Your task to perform on an android device: refresh tabs in the chrome app Image 0: 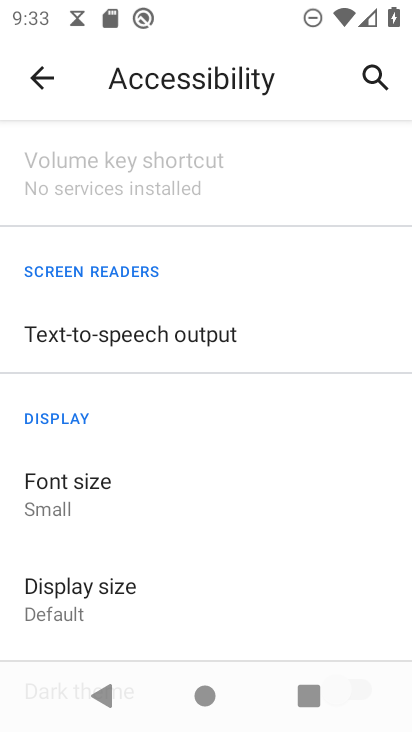
Step 0: press home button
Your task to perform on an android device: refresh tabs in the chrome app Image 1: 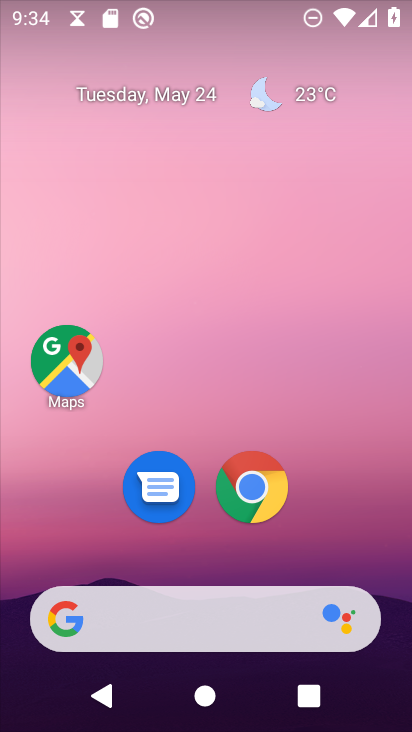
Step 1: click (267, 504)
Your task to perform on an android device: refresh tabs in the chrome app Image 2: 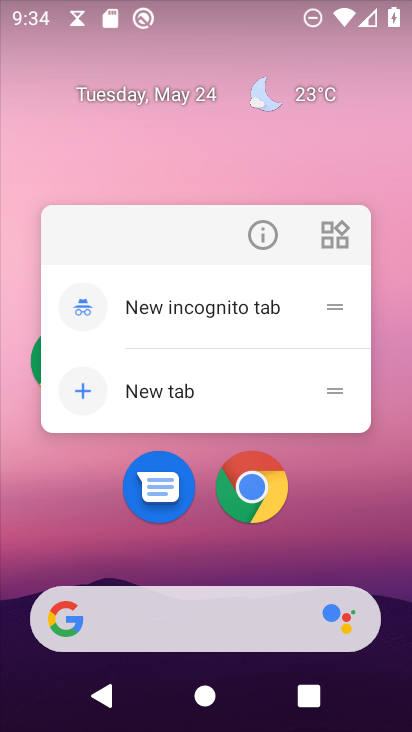
Step 2: click (247, 479)
Your task to perform on an android device: refresh tabs in the chrome app Image 3: 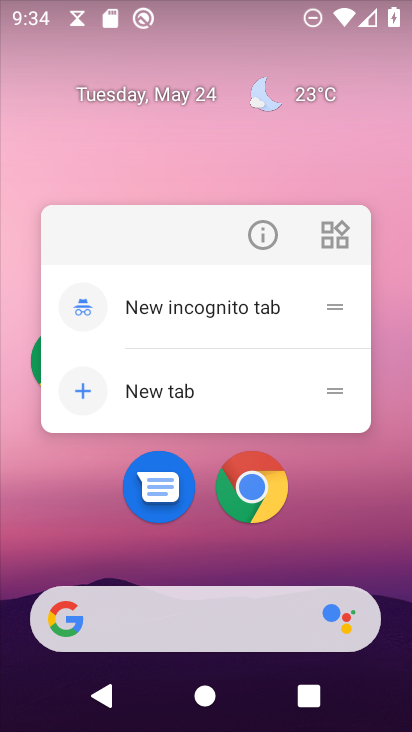
Step 3: click (256, 496)
Your task to perform on an android device: refresh tabs in the chrome app Image 4: 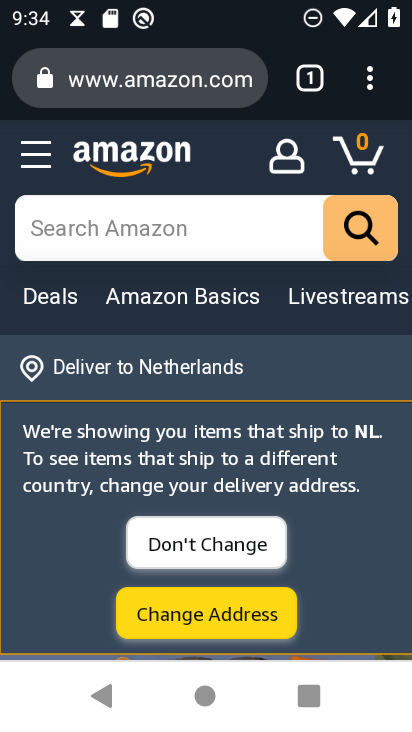
Step 4: click (373, 74)
Your task to perform on an android device: refresh tabs in the chrome app Image 5: 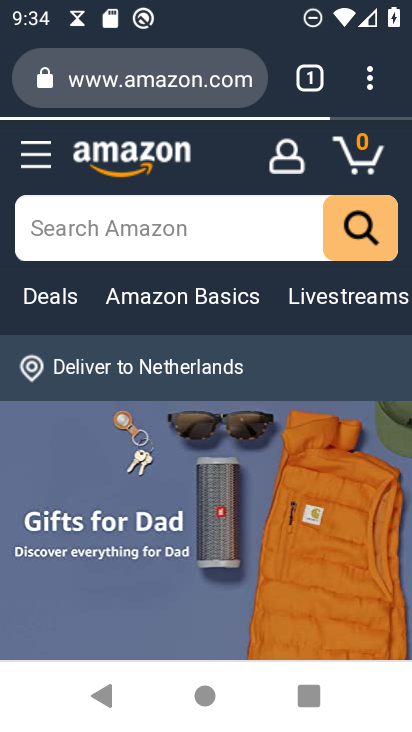
Step 5: click (360, 80)
Your task to perform on an android device: refresh tabs in the chrome app Image 6: 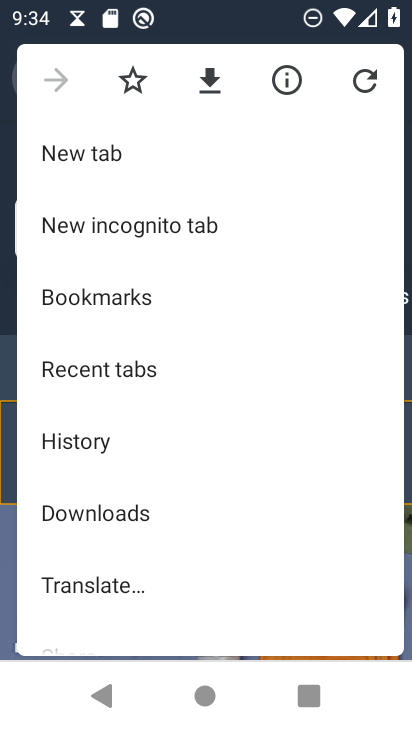
Step 6: click (369, 78)
Your task to perform on an android device: refresh tabs in the chrome app Image 7: 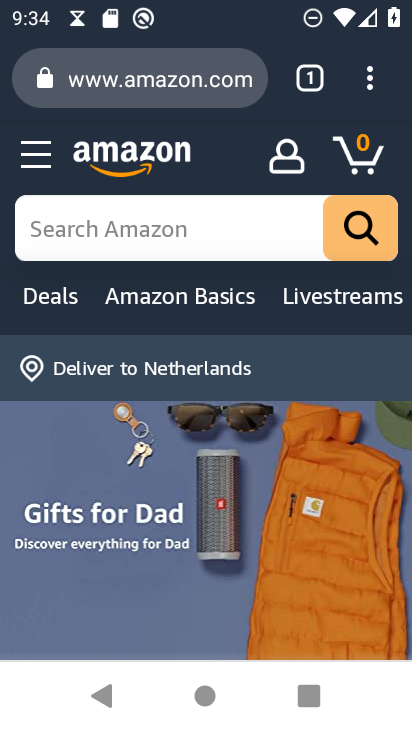
Step 7: task complete